Your task to perform on an android device: find which apps use the phone's location Image 0: 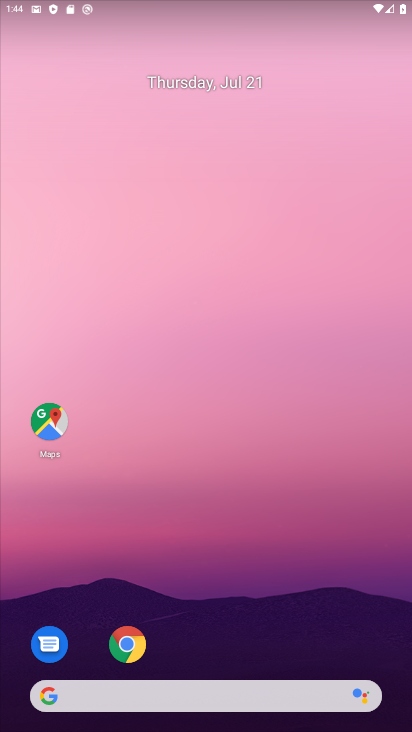
Step 0: click (225, 306)
Your task to perform on an android device: find which apps use the phone's location Image 1: 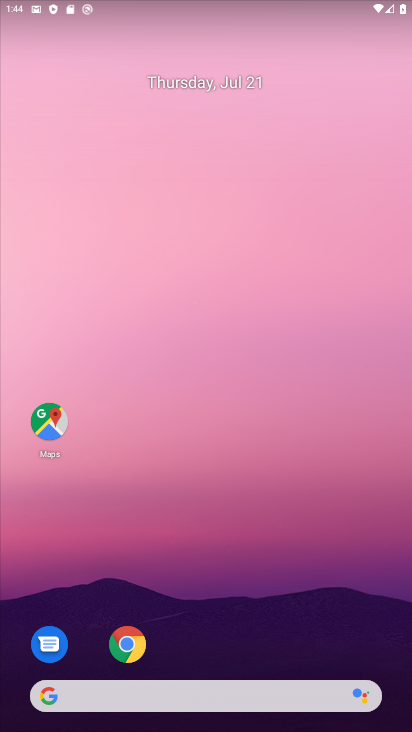
Step 1: drag from (266, 641) to (212, 50)
Your task to perform on an android device: find which apps use the phone's location Image 2: 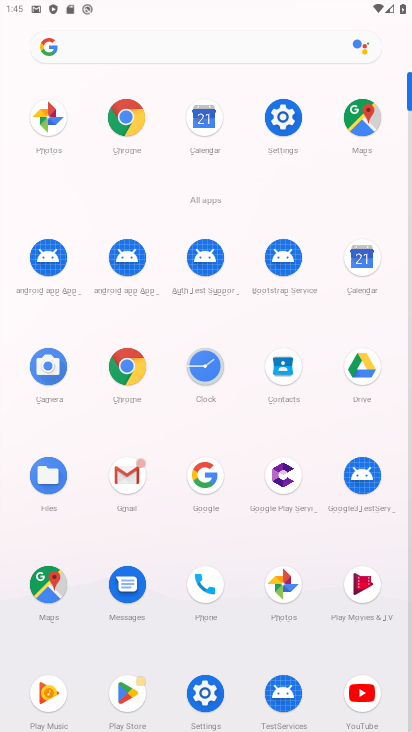
Step 2: click (205, 684)
Your task to perform on an android device: find which apps use the phone's location Image 3: 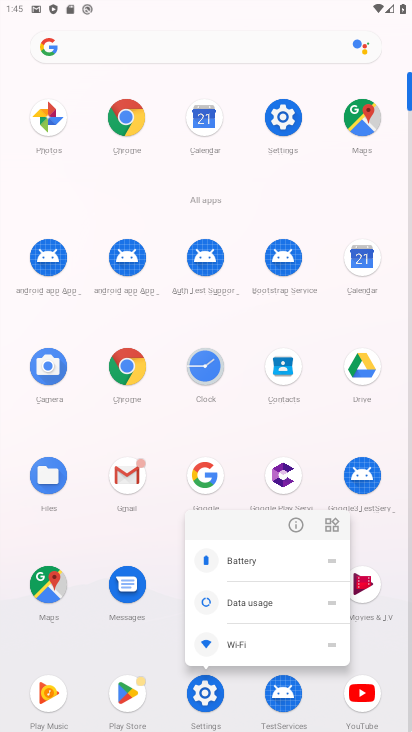
Step 3: click (215, 699)
Your task to perform on an android device: find which apps use the phone's location Image 4: 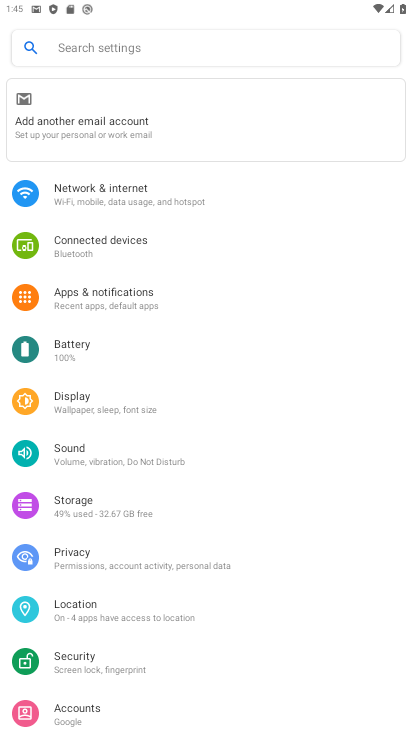
Step 4: click (93, 610)
Your task to perform on an android device: find which apps use the phone's location Image 5: 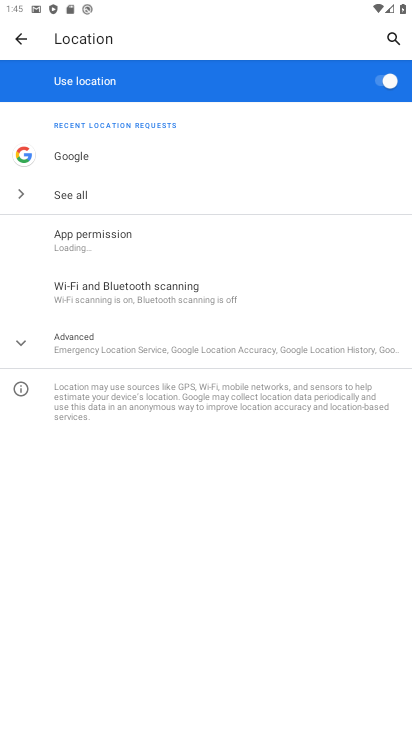
Step 5: click (262, 192)
Your task to perform on an android device: find which apps use the phone's location Image 6: 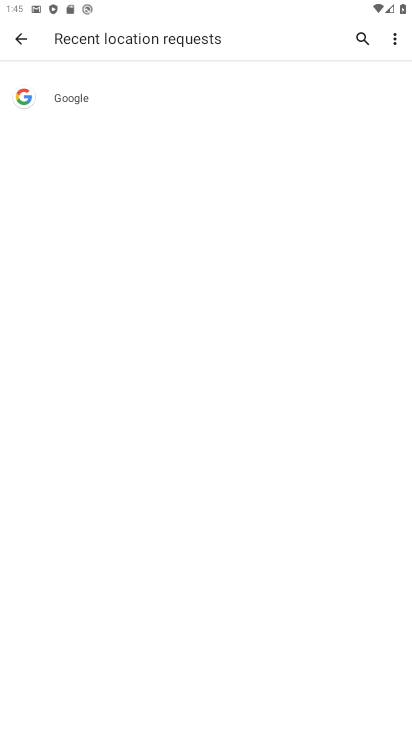
Step 6: task complete